Your task to perform on an android device: open a new tab in the chrome app Image 0: 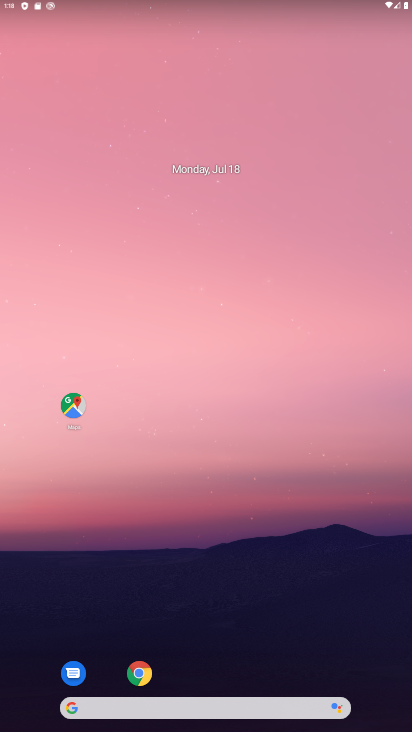
Step 0: click (140, 671)
Your task to perform on an android device: open a new tab in the chrome app Image 1: 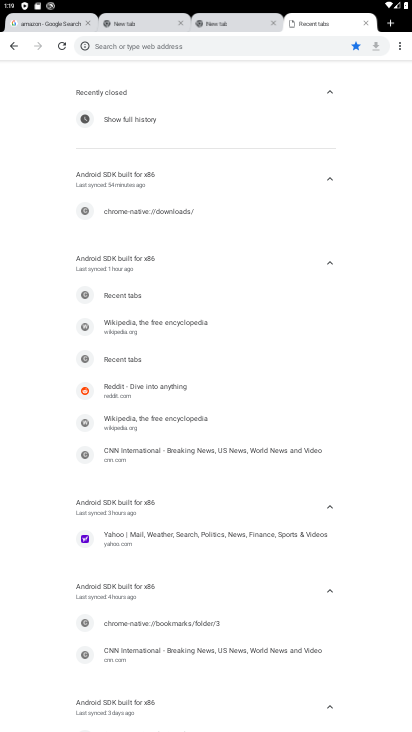
Step 1: click (402, 48)
Your task to perform on an android device: open a new tab in the chrome app Image 2: 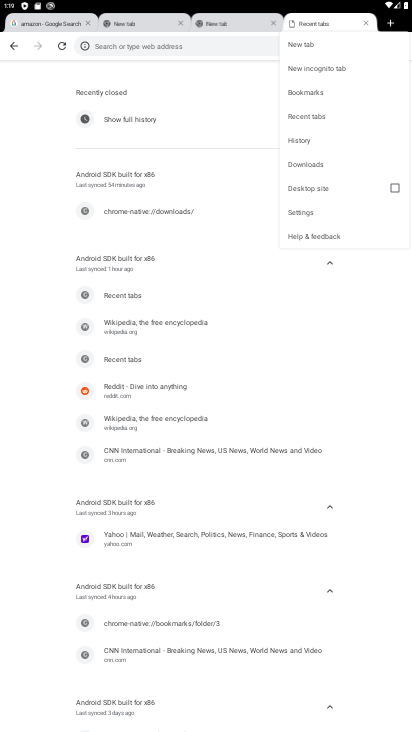
Step 2: click (300, 47)
Your task to perform on an android device: open a new tab in the chrome app Image 3: 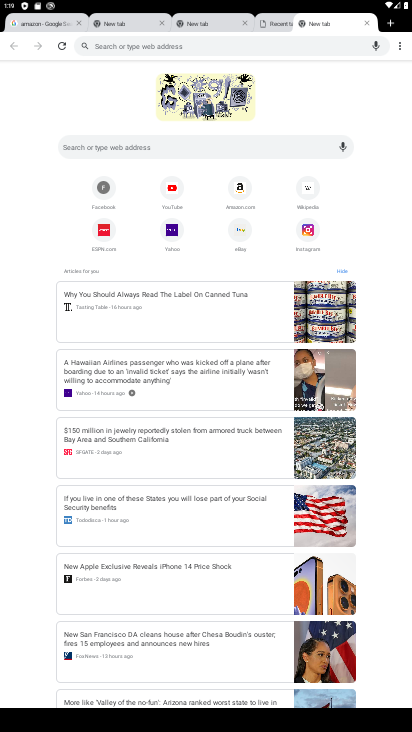
Step 3: task complete